Your task to perform on an android device: allow notifications from all sites in the chrome app Image 0: 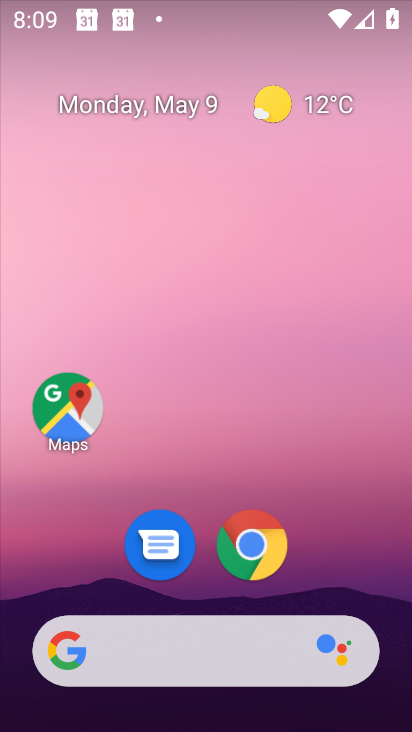
Step 0: drag from (225, 723) to (220, 145)
Your task to perform on an android device: allow notifications from all sites in the chrome app Image 1: 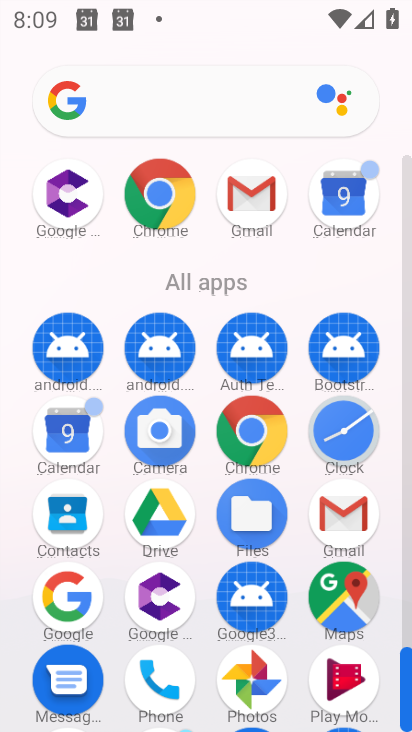
Step 1: click (166, 188)
Your task to perform on an android device: allow notifications from all sites in the chrome app Image 2: 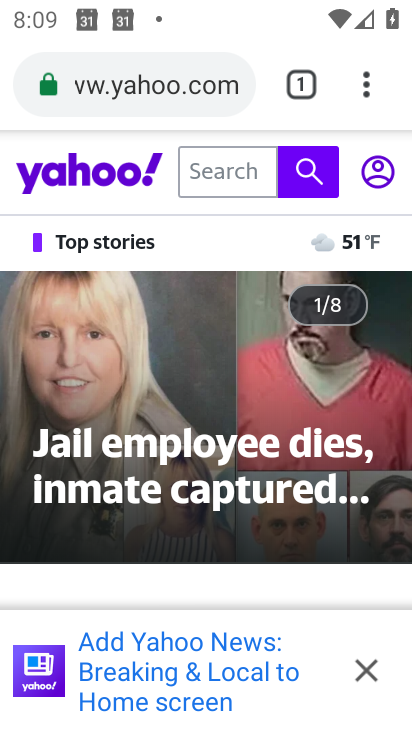
Step 2: click (367, 92)
Your task to perform on an android device: allow notifications from all sites in the chrome app Image 3: 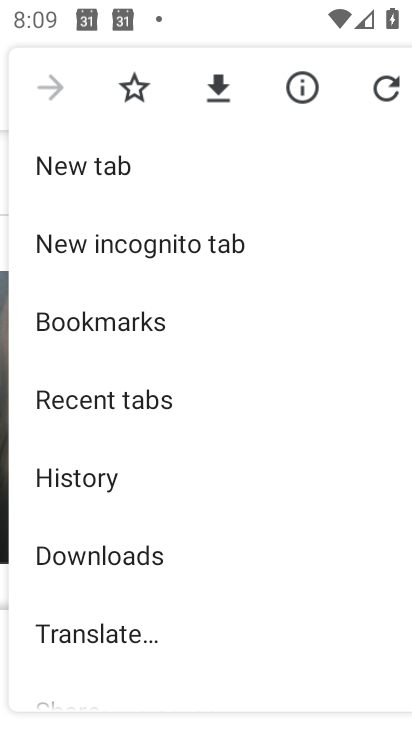
Step 3: drag from (119, 592) to (120, 296)
Your task to perform on an android device: allow notifications from all sites in the chrome app Image 4: 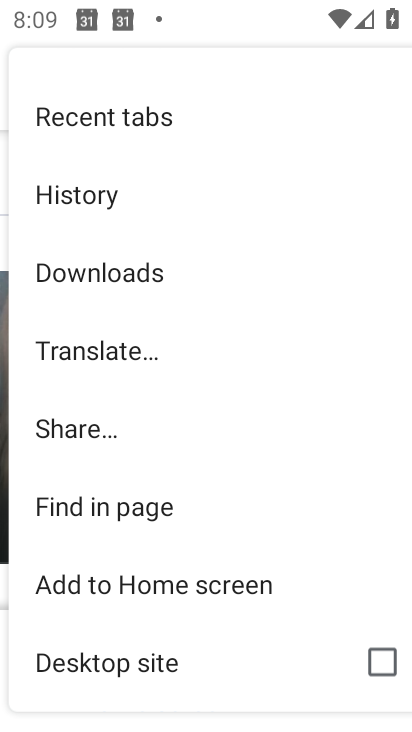
Step 4: drag from (118, 643) to (127, 319)
Your task to perform on an android device: allow notifications from all sites in the chrome app Image 5: 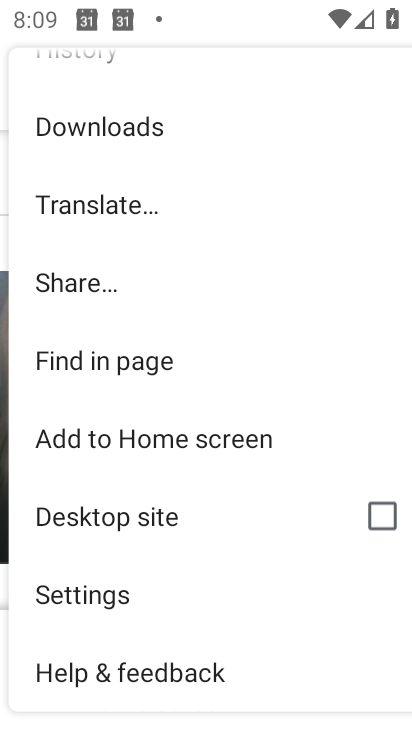
Step 5: click (96, 592)
Your task to perform on an android device: allow notifications from all sites in the chrome app Image 6: 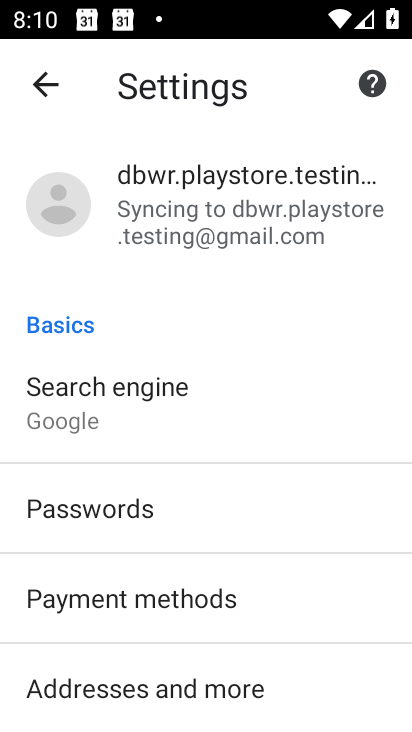
Step 6: drag from (178, 664) to (190, 319)
Your task to perform on an android device: allow notifications from all sites in the chrome app Image 7: 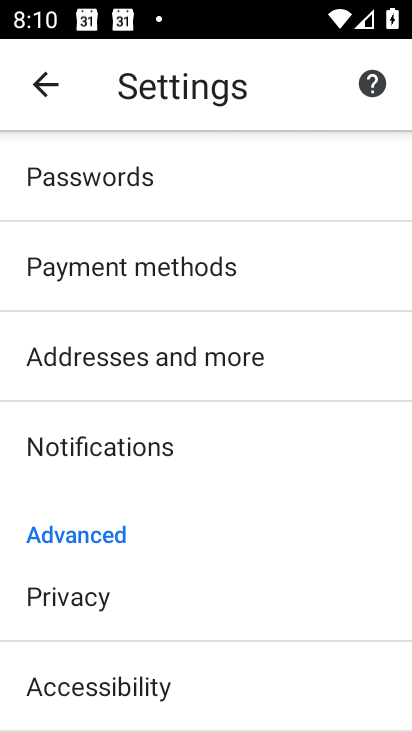
Step 7: drag from (188, 656) to (203, 376)
Your task to perform on an android device: allow notifications from all sites in the chrome app Image 8: 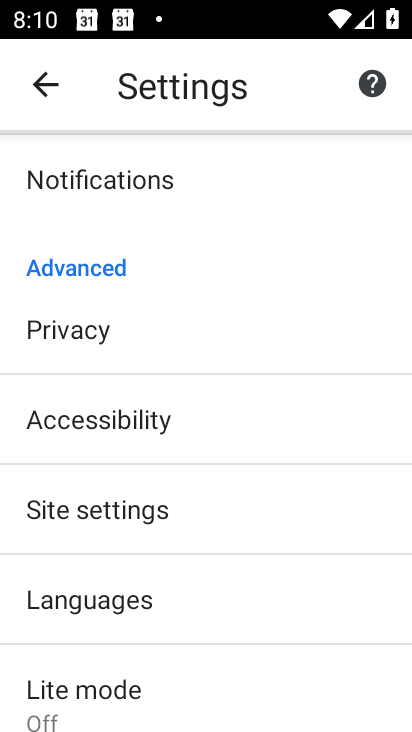
Step 8: click (122, 509)
Your task to perform on an android device: allow notifications from all sites in the chrome app Image 9: 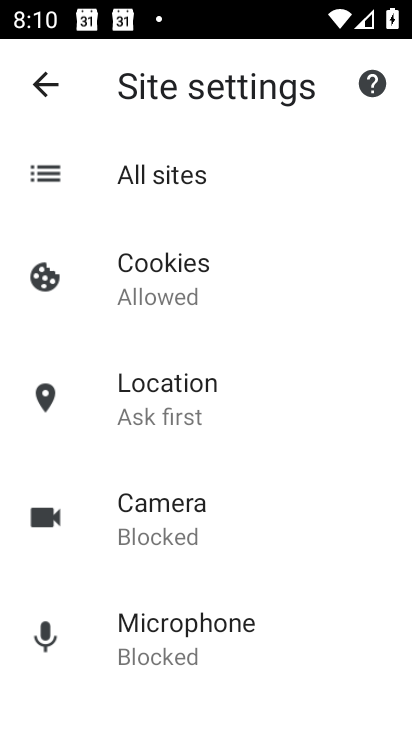
Step 9: drag from (196, 640) to (199, 239)
Your task to perform on an android device: allow notifications from all sites in the chrome app Image 10: 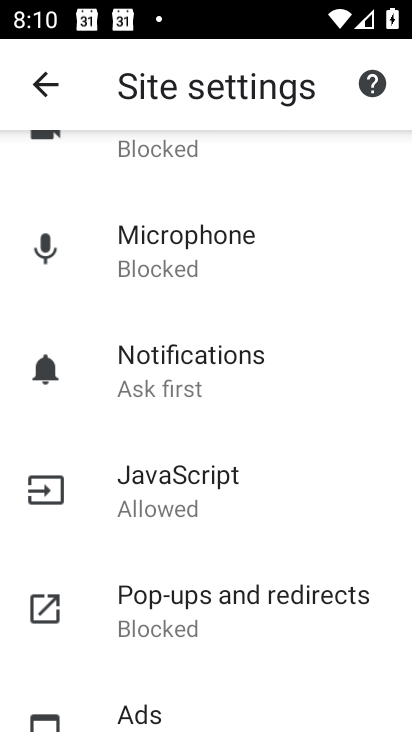
Step 10: click (194, 364)
Your task to perform on an android device: allow notifications from all sites in the chrome app Image 11: 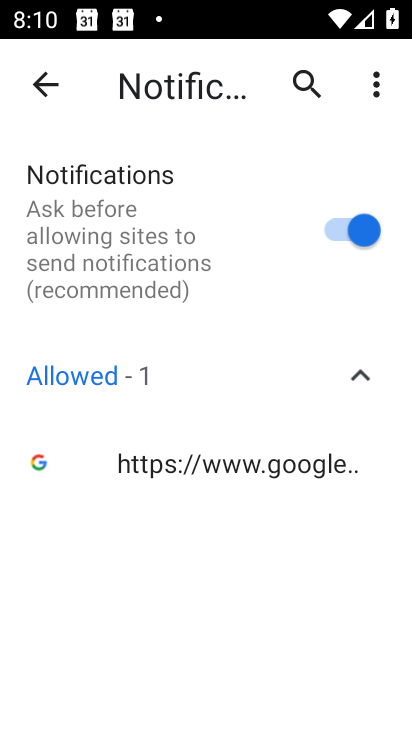
Step 11: task complete